Your task to perform on an android device: open app "Gboard" Image 0: 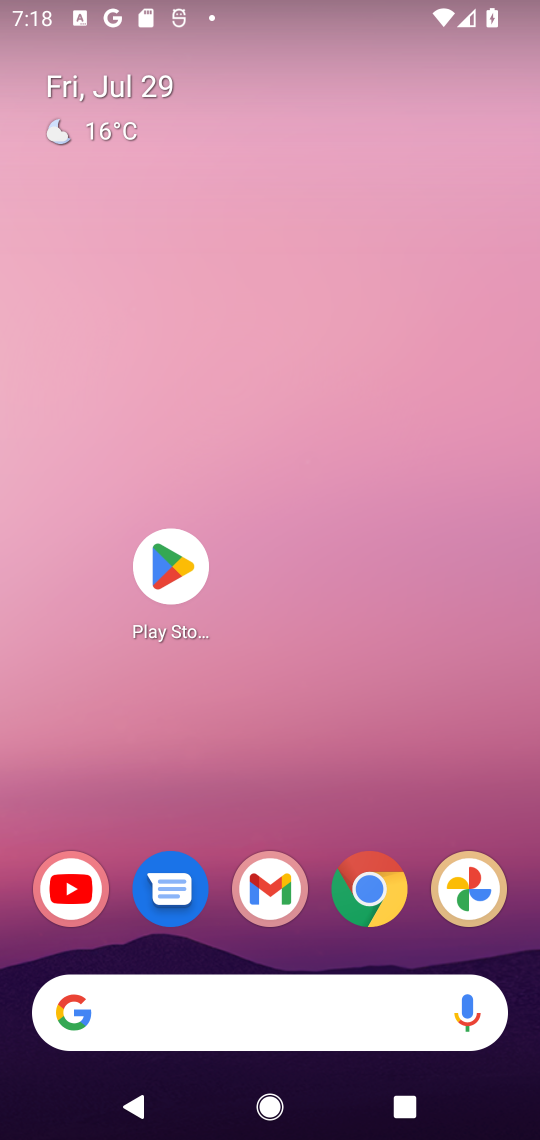
Step 0: click (175, 568)
Your task to perform on an android device: open app "Gboard" Image 1: 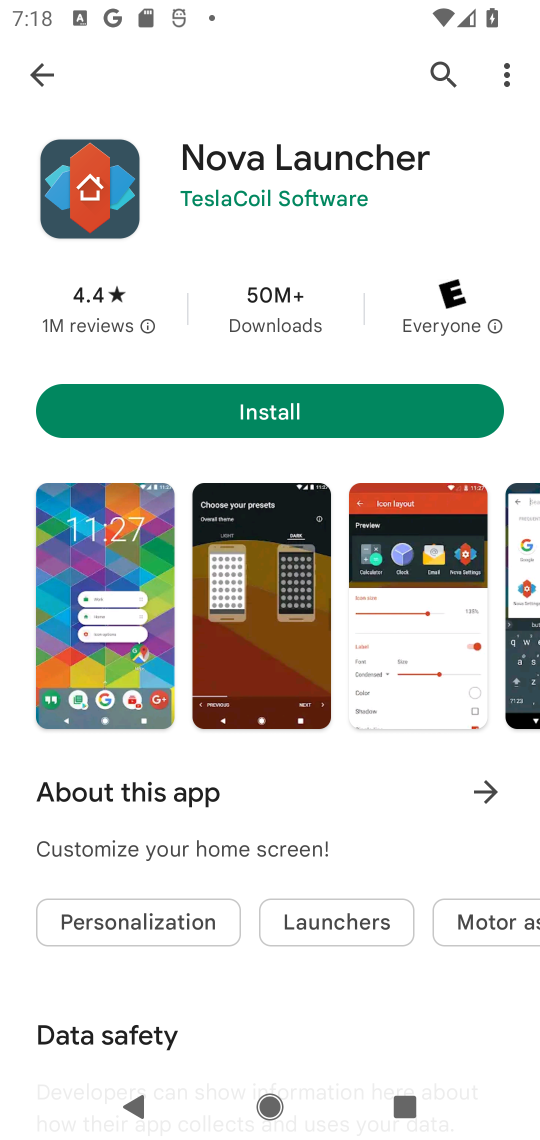
Step 1: click (438, 68)
Your task to perform on an android device: open app "Gboard" Image 2: 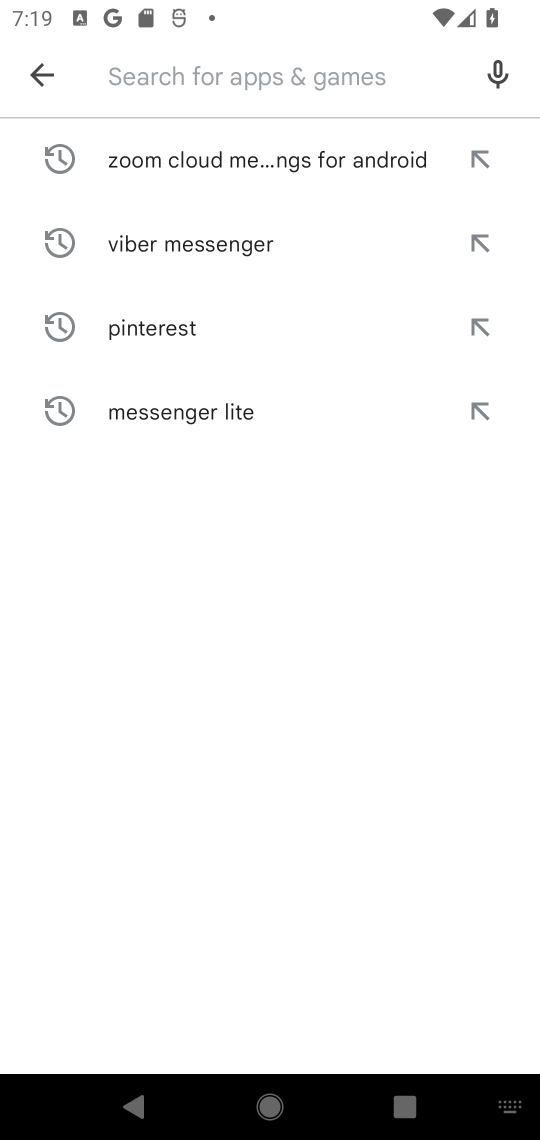
Step 2: type "Gboard"
Your task to perform on an android device: open app "Gboard" Image 3: 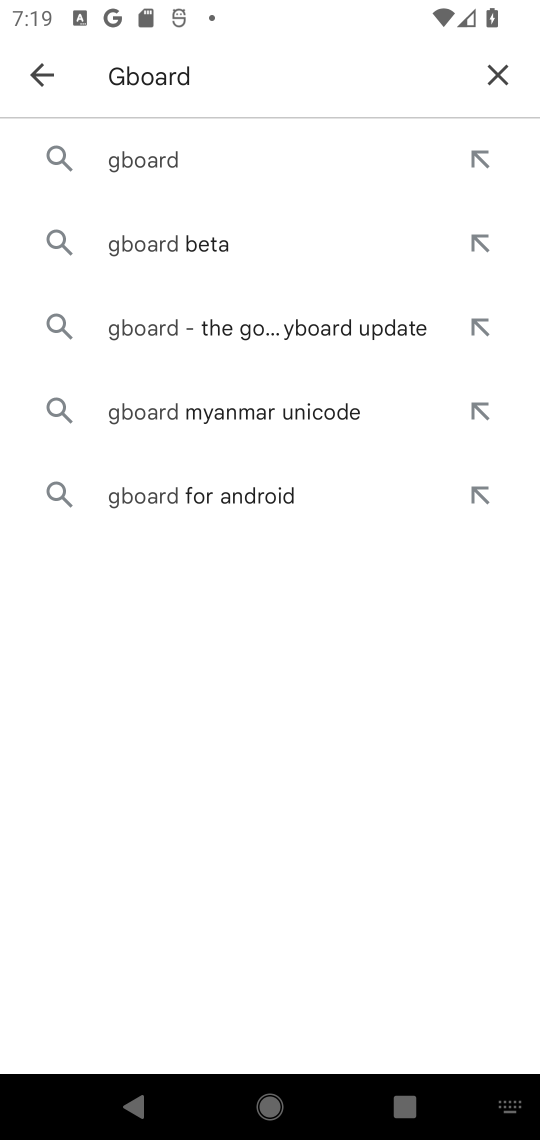
Step 3: click (137, 160)
Your task to perform on an android device: open app "Gboard" Image 4: 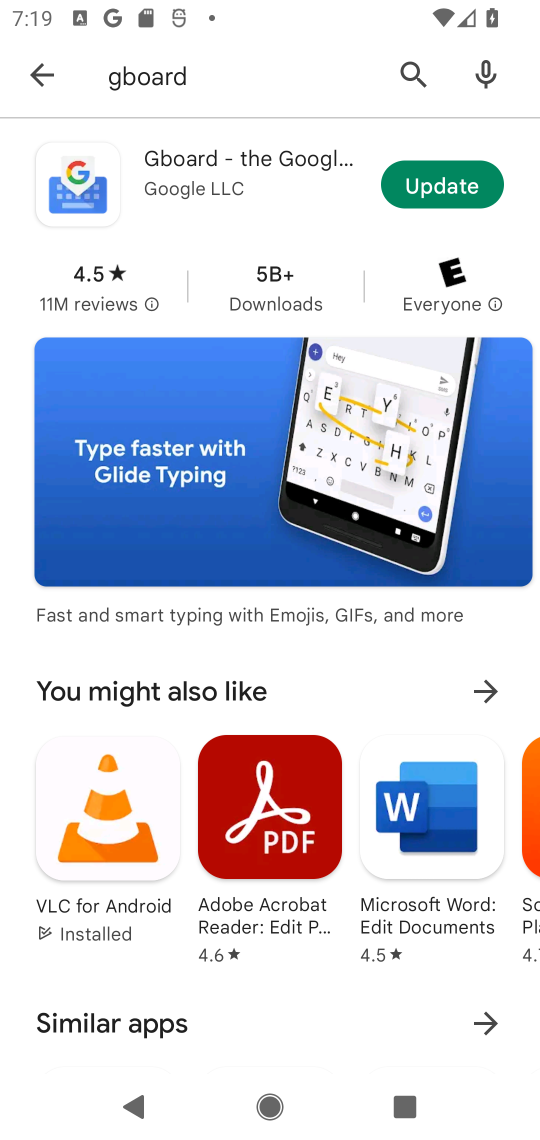
Step 4: task complete